Your task to perform on an android device: move a message to another label in the gmail app Image 0: 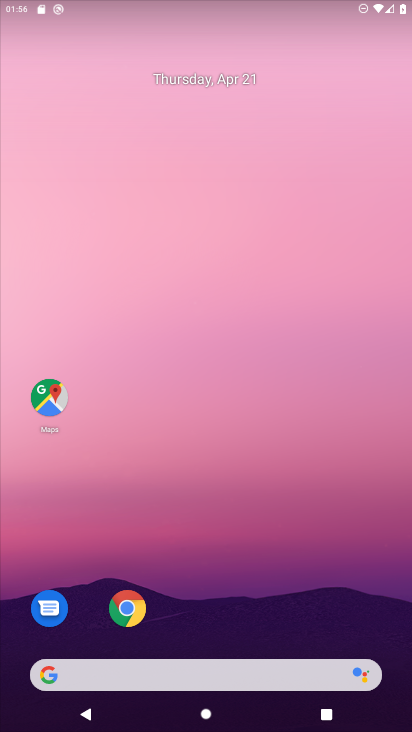
Step 0: drag from (201, 594) to (243, 220)
Your task to perform on an android device: move a message to another label in the gmail app Image 1: 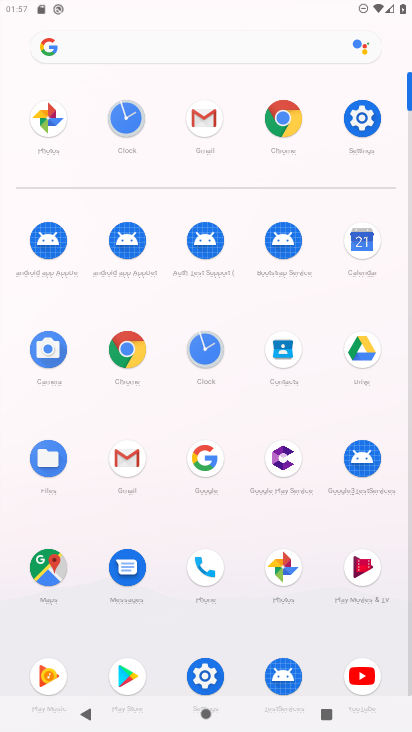
Step 1: click (203, 115)
Your task to perform on an android device: move a message to another label in the gmail app Image 2: 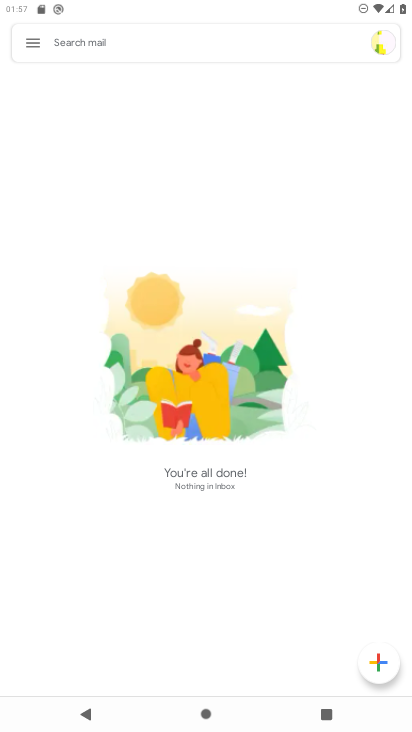
Step 2: click (32, 43)
Your task to perform on an android device: move a message to another label in the gmail app Image 3: 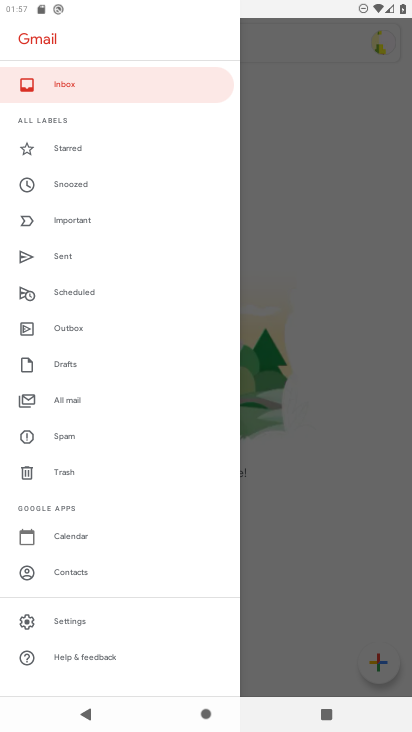
Step 3: click (73, 400)
Your task to perform on an android device: move a message to another label in the gmail app Image 4: 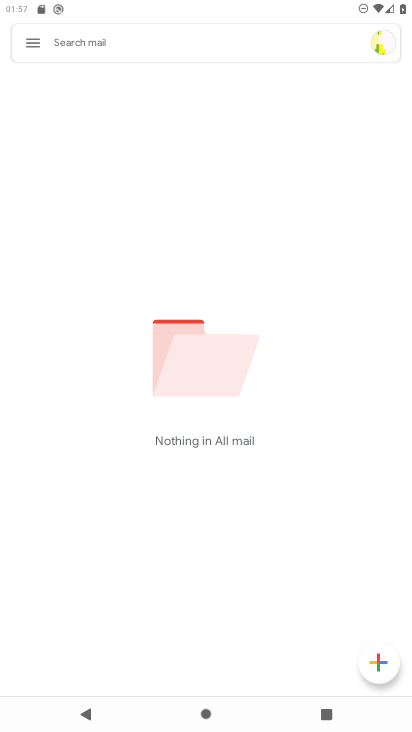
Step 4: task complete